Your task to perform on an android device: turn pop-ups off in chrome Image 0: 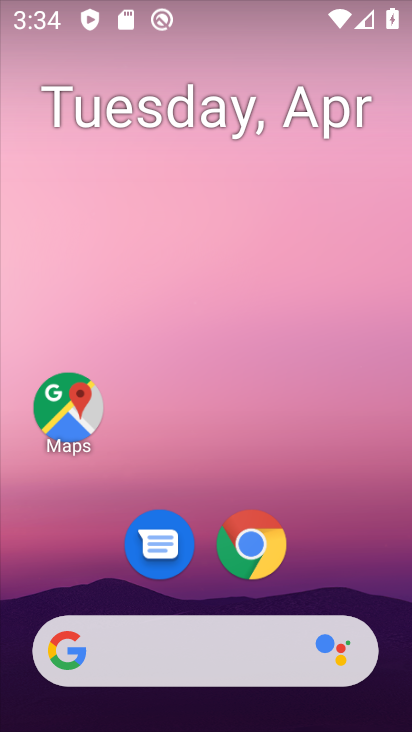
Step 0: click (265, 559)
Your task to perform on an android device: turn pop-ups off in chrome Image 1: 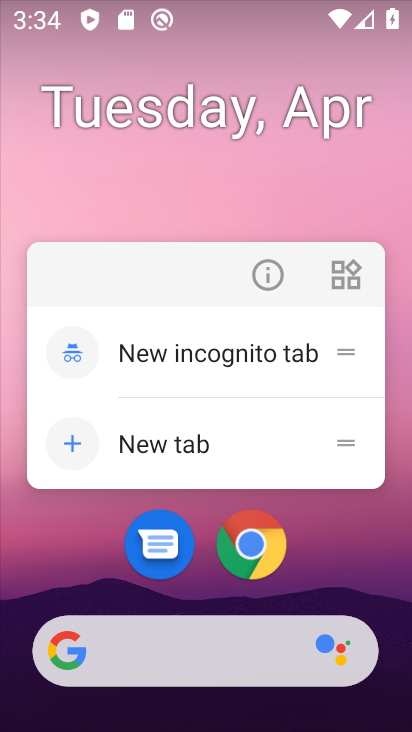
Step 1: click (257, 545)
Your task to perform on an android device: turn pop-ups off in chrome Image 2: 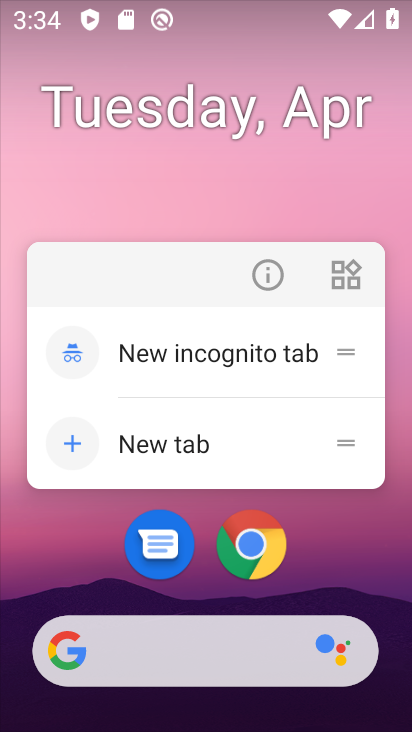
Step 2: click (268, 560)
Your task to perform on an android device: turn pop-ups off in chrome Image 3: 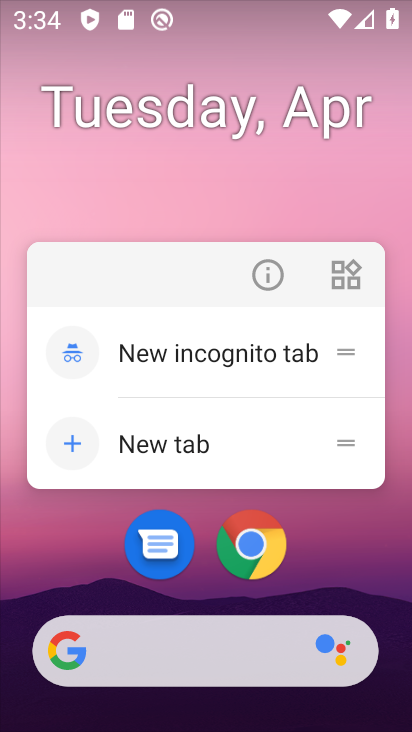
Step 3: click (268, 560)
Your task to perform on an android device: turn pop-ups off in chrome Image 4: 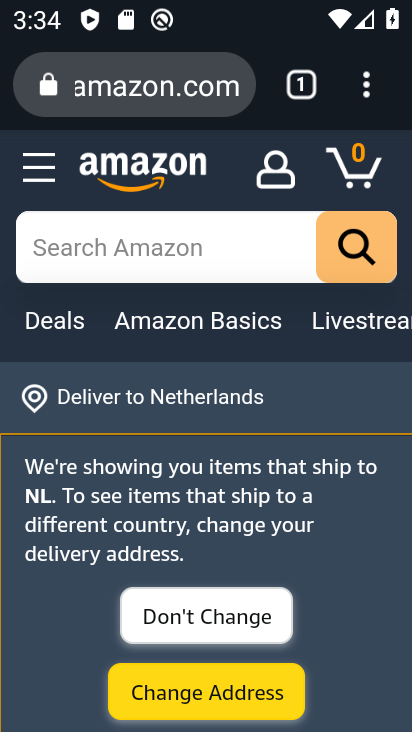
Step 4: drag from (368, 94) to (171, 644)
Your task to perform on an android device: turn pop-ups off in chrome Image 5: 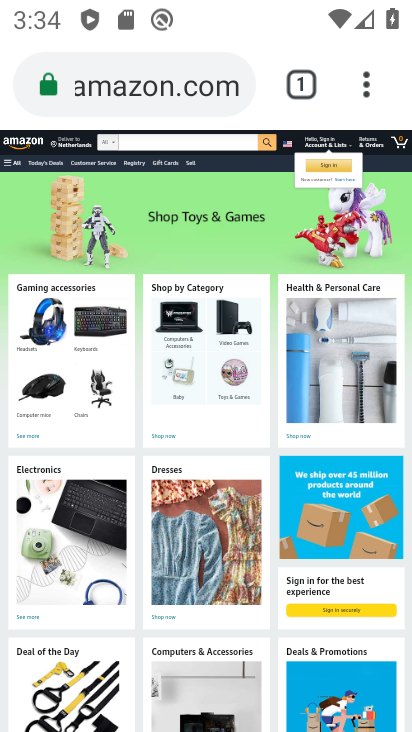
Step 5: drag from (361, 93) to (174, 598)
Your task to perform on an android device: turn pop-ups off in chrome Image 6: 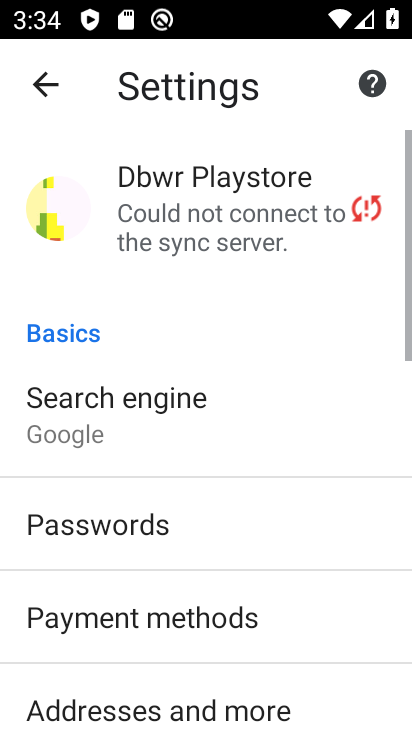
Step 6: drag from (205, 688) to (203, 222)
Your task to perform on an android device: turn pop-ups off in chrome Image 7: 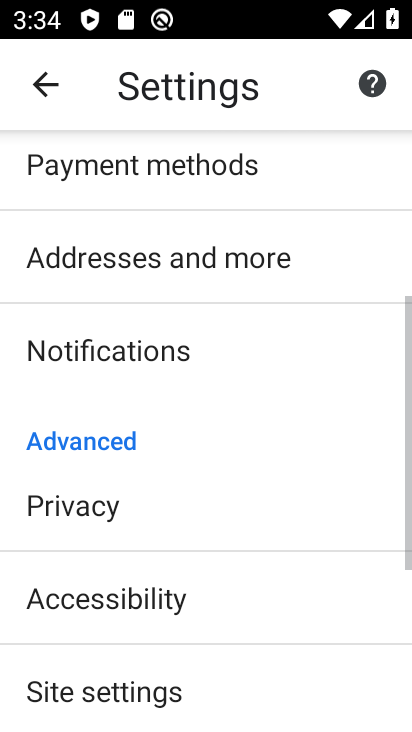
Step 7: drag from (191, 692) to (204, 506)
Your task to perform on an android device: turn pop-ups off in chrome Image 8: 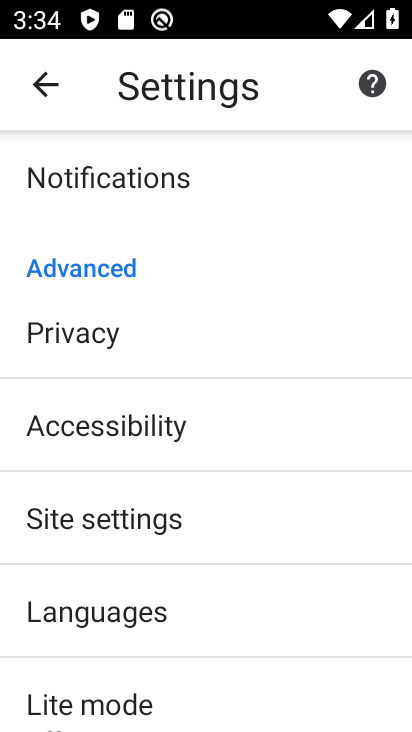
Step 8: click (152, 528)
Your task to perform on an android device: turn pop-ups off in chrome Image 9: 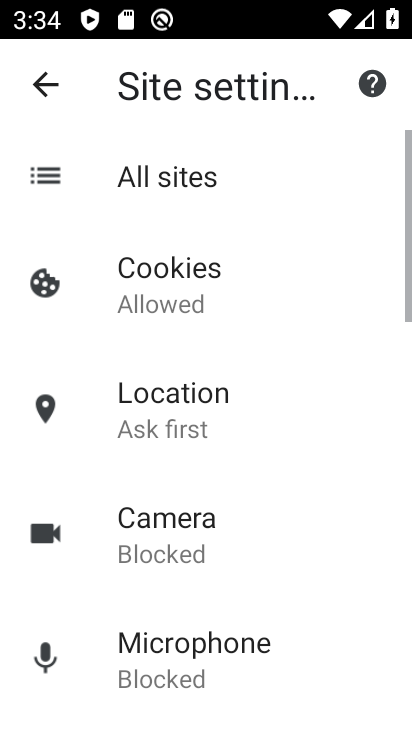
Step 9: drag from (285, 628) to (292, 300)
Your task to perform on an android device: turn pop-ups off in chrome Image 10: 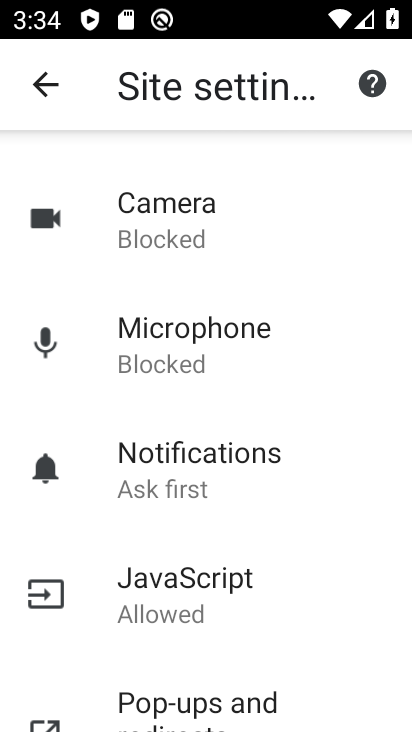
Step 10: drag from (276, 682) to (285, 469)
Your task to perform on an android device: turn pop-ups off in chrome Image 11: 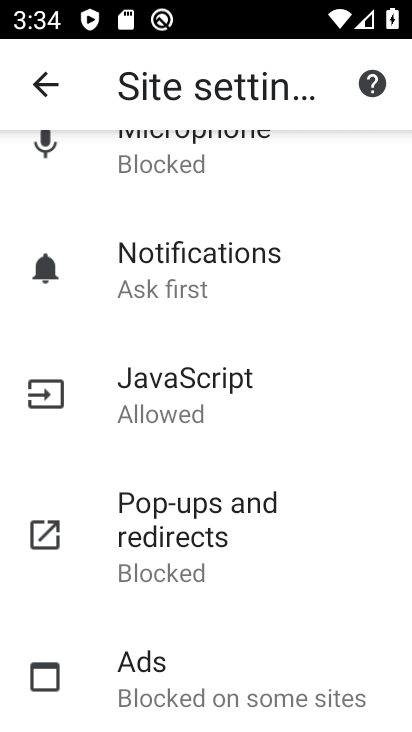
Step 11: click (231, 539)
Your task to perform on an android device: turn pop-ups off in chrome Image 12: 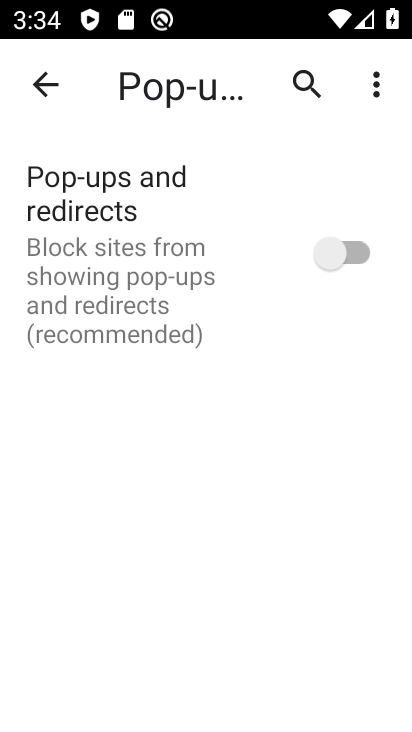
Step 12: task complete